Your task to perform on an android device: Open Google Maps Image 0: 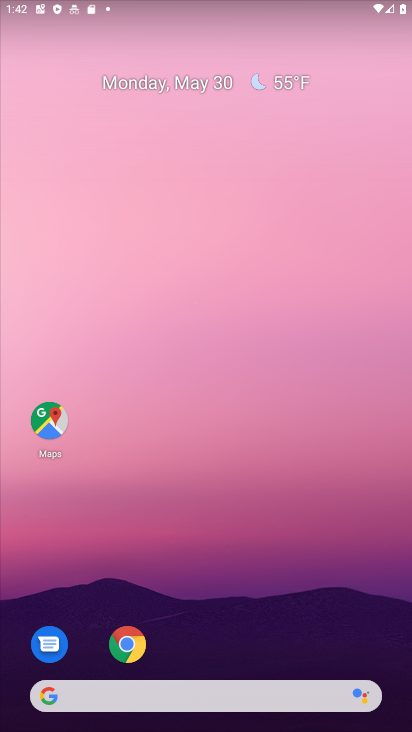
Step 0: drag from (258, 636) to (170, 4)
Your task to perform on an android device: Open Google Maps Image 1: 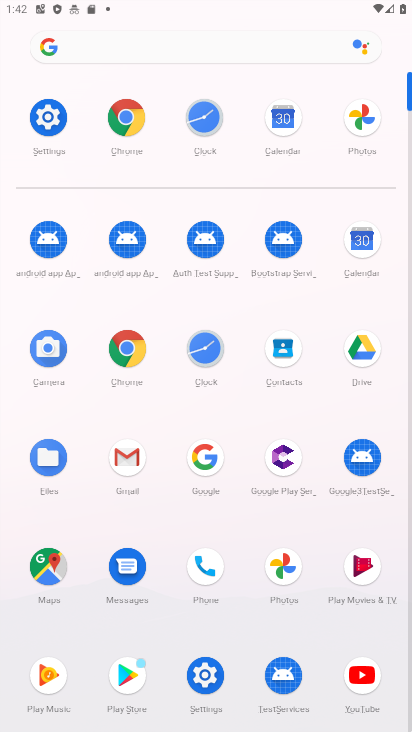
Step 1: click (43, 569)
Your task to perform on an android device: Open Google Maps Image 2: 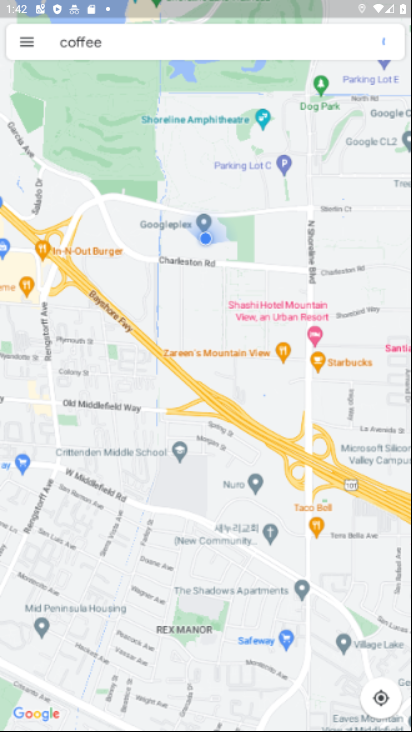
Step 2: task complete